Your task to perform on an android device: turn on wifi Image 0: 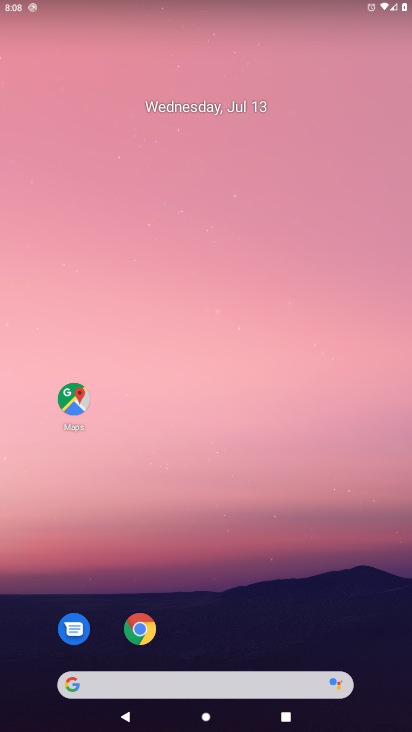
Step 0: drag from (36, 721) to (204, 62)
Your task to perform on an android device: turn on wifi Image 1: 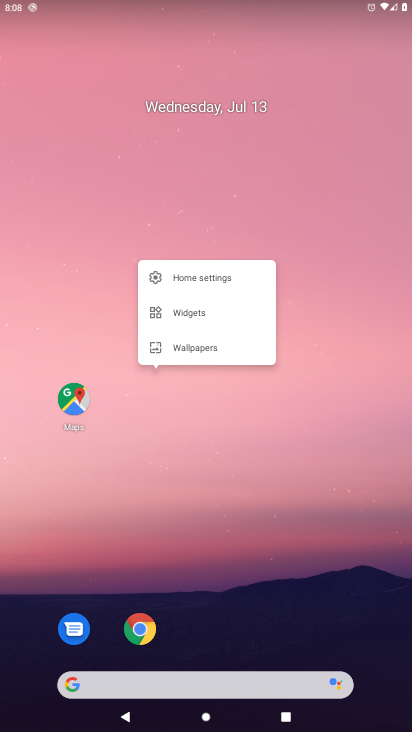
Step 1: drag from (26, 691) to (192, 76)
Your task to perform on an android device: turn on wifi Image 2: 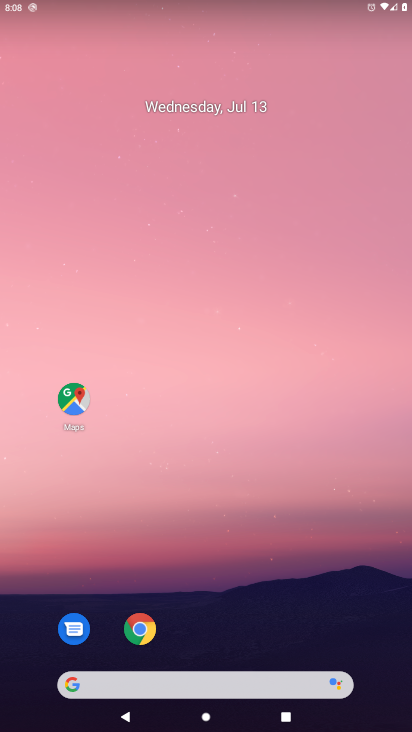
Step 2: drag from (28, 689) to (298, 45)
Your task to perform on an android device: turn on wifi Image 3: 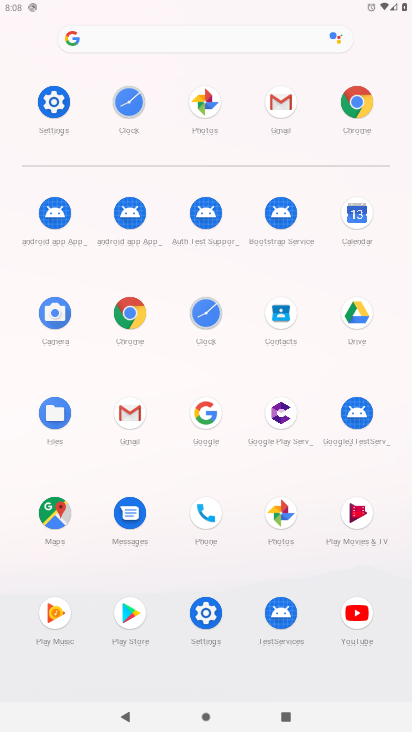
Step 3: click (201, 604)
Your task to perform on an android device: turn on wifi Image 4: 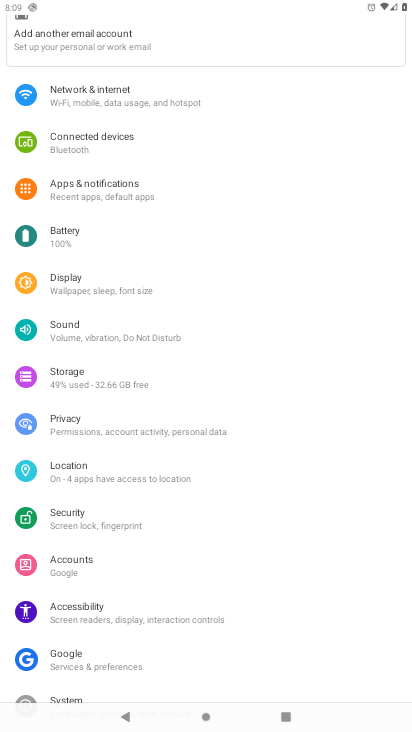
Step 4: click (141, 93)
Your task to perform on an android device: turn on wifi Image 5: 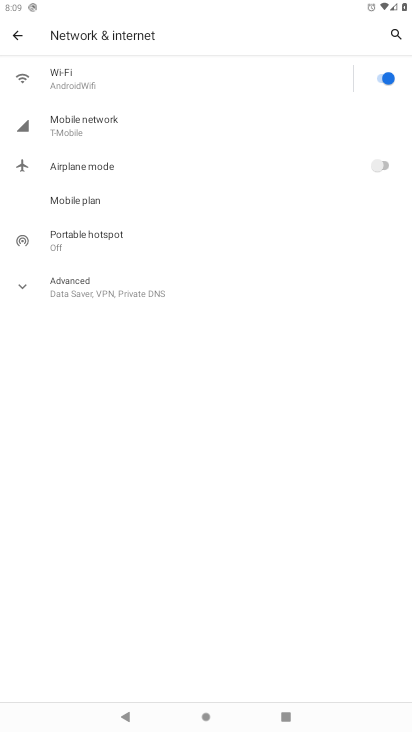
Step 5: task complete